Your task to perform on an android device: Open calendar and show me the third week of next month Image 0: 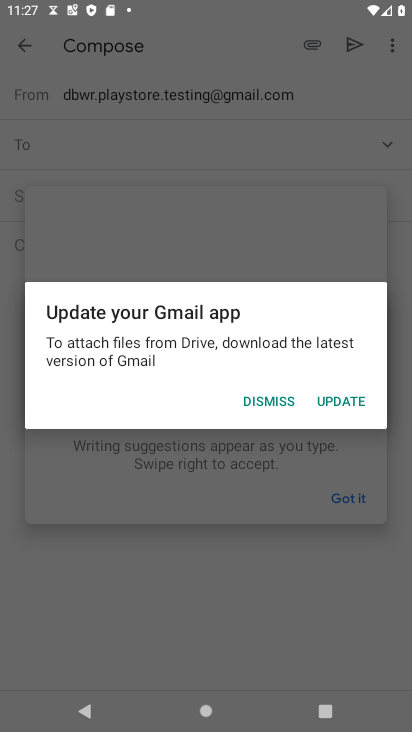
Step 0: click (117, 62)
Your task to perform on an android device: Open calendar and show me the third week of next month Image 1: 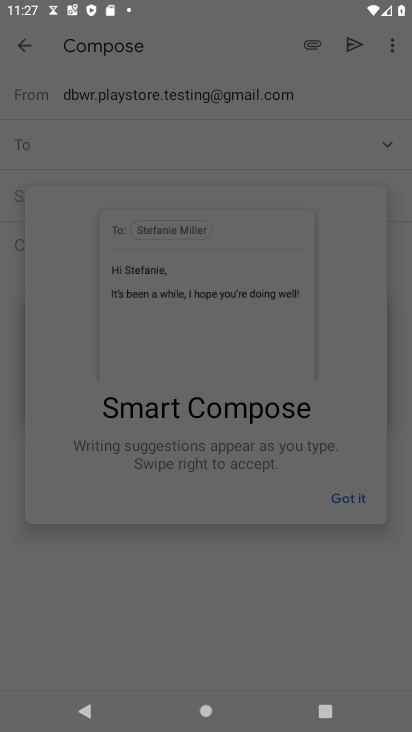
Step 1: press back button
Your task to perform on an android device: Open calendar and show me the third week of next month Image 2: 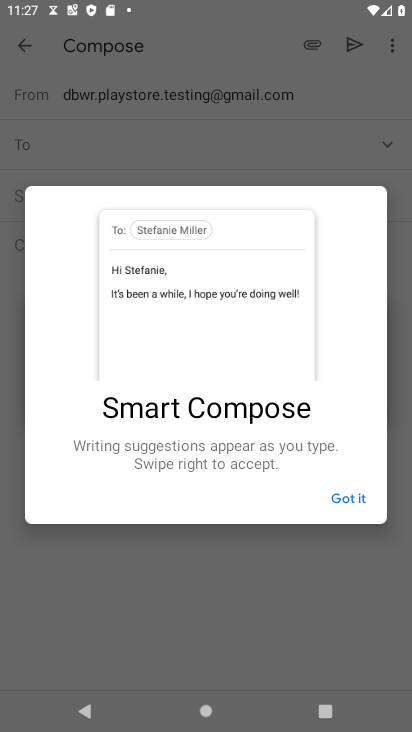
Step 2: press back button
Your task to perform on an android device: Open calendar and show me the third week of next month Image 3: 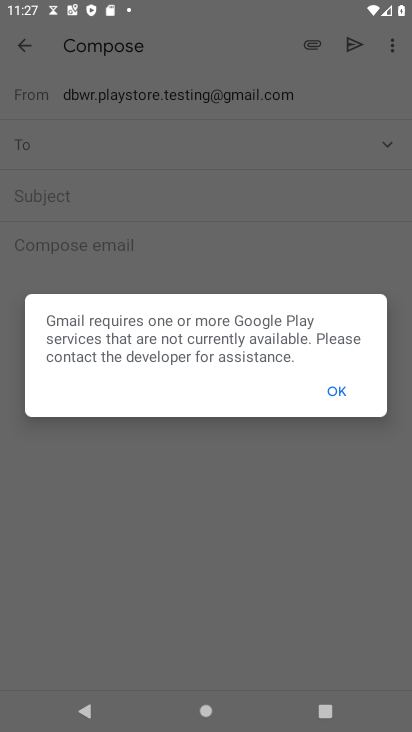
Step 3: press back button
Your task to perform on an android device: Open calendar and show me the third week of next month Image 4: 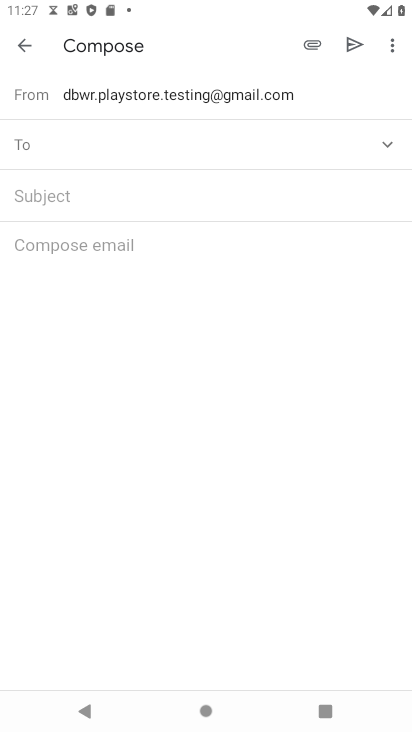
Step 4: press back button
Your task to perform on an android device: Open calendar and show me the third week of next month Image 5: 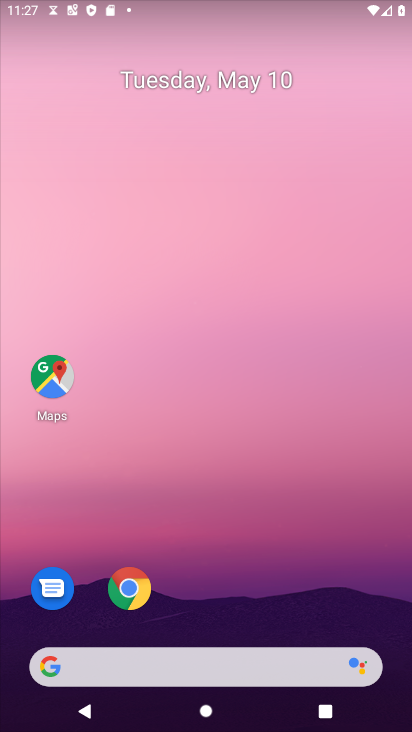
Step 5: click (14, 36)
Your task to perform on an android device: Open calendar and show me the third week of next month Image 6: 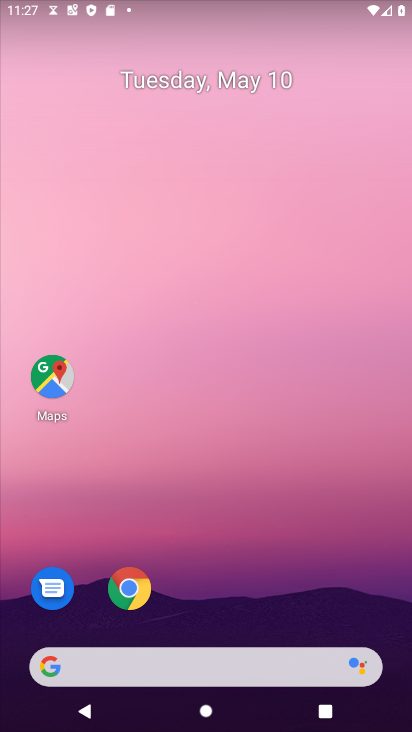
Step 6: press back button
Your task to perform on an android device: Open calendar and show me the third week of next month Image 7: 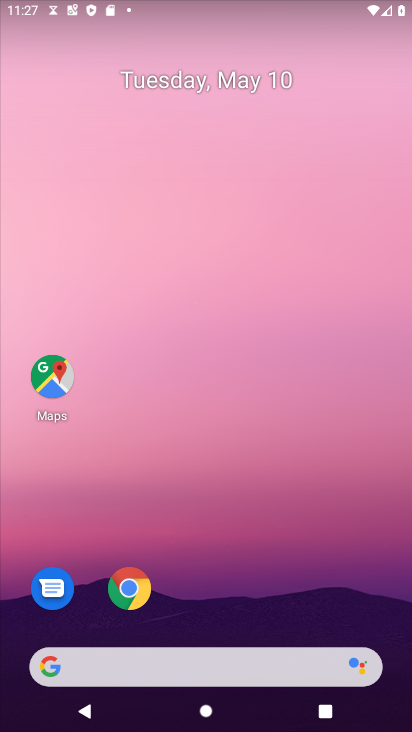
Step 7: drag from (374, 642) to (121, 99)
Your task to perform on an android device: Open calendar and show me the third week of next month Image 8: 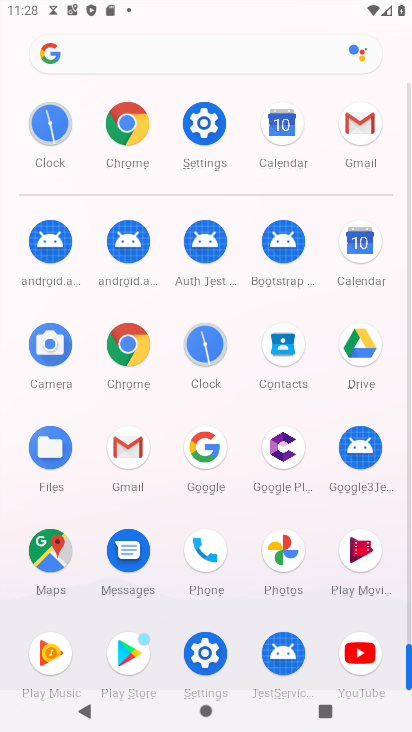
Step 8: click (360, 234)
Your task to perform on an android device: Open calendar and show me the third week of next month Image 9: 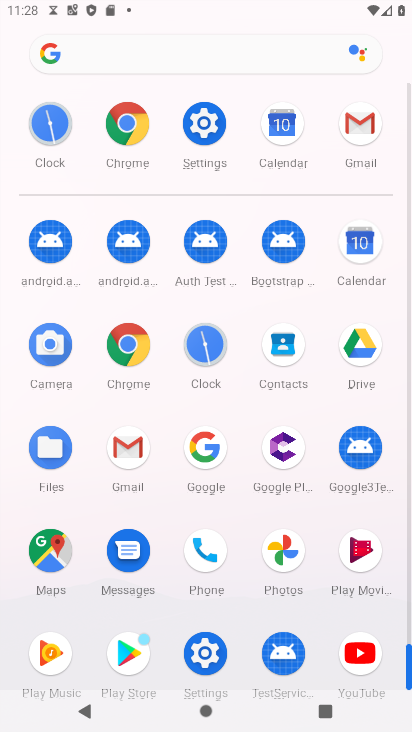
Step 9: click (359, 234)
Your task to perform on an android device: Open calendar and show me the third week of next month Image 10: 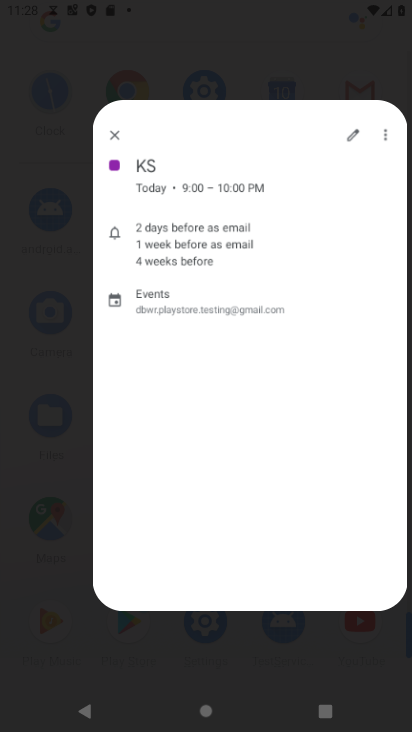
Step 10: click (352, 241)
Your task to perform on an android device: Open calendar and show me the third week of next month Image 11: 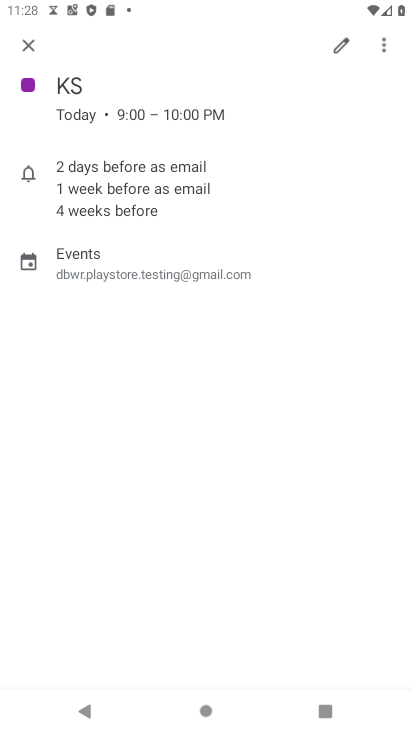
Step 11: click (19, 38)
Your task to perform on an android device: Open calendar and show me the third week of next month Image 12: 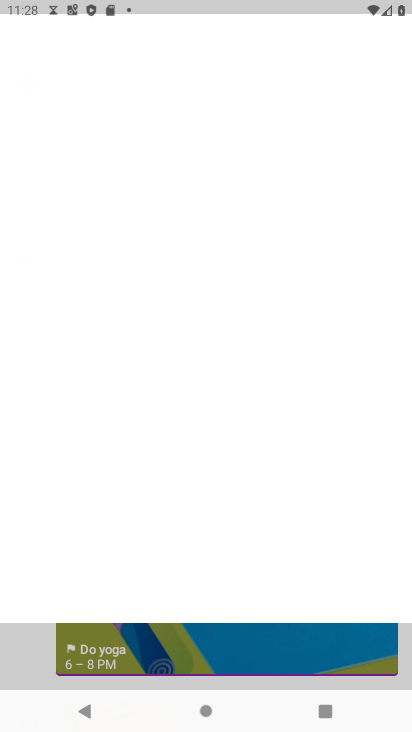
Step 12: click (21, 40)
Your task to perform on an android device: Open calendar and show me the third week of next month Image 13: 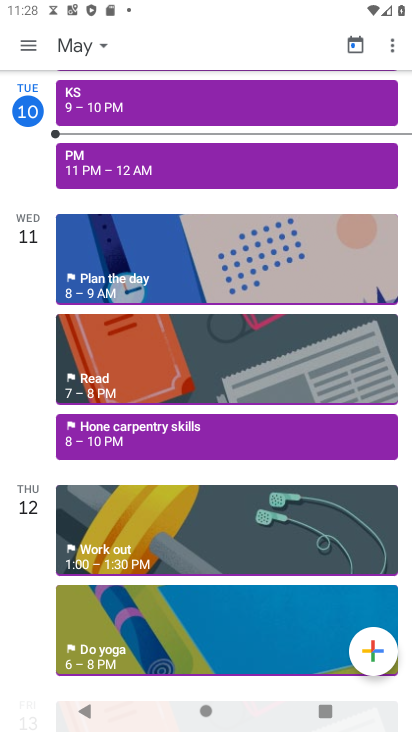
Step 13: click (94, 45)
Your task to perform on an android device: Open calendar and show me the third week of next month Image 14: 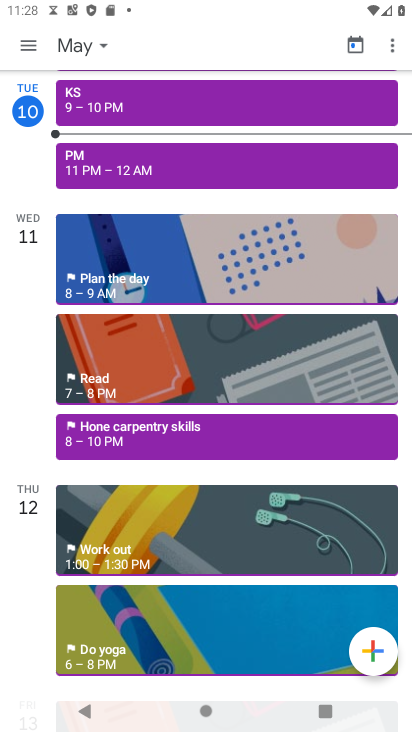
Step 14: click (94, 45)
Your task to perform on an android device: Open calendar and show me the third week of next month Image 15: 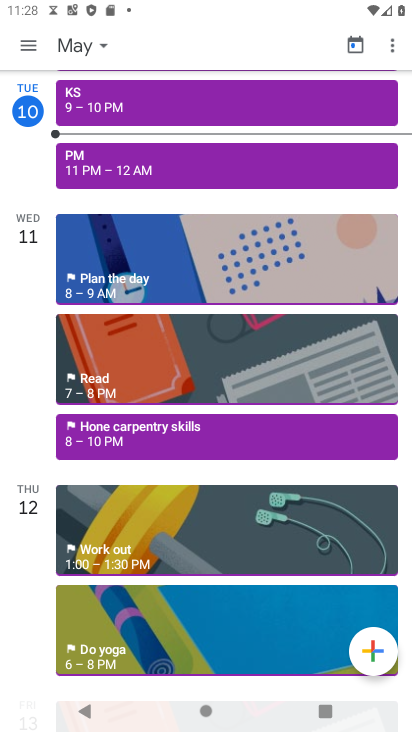
Step 15: click (100, 43)
Your task to perform on an android device: Open calendar and show me the third week of next month Image 16: 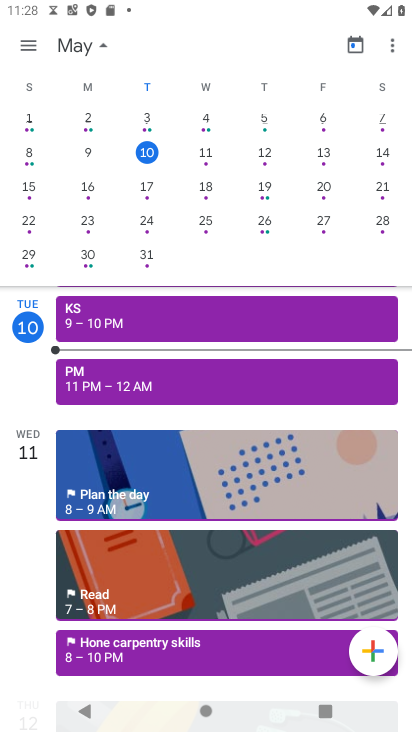
Step 16: drag from (243, 166) to (0, 231)
Your task to perform on an android device: Open calendar and show me the third week of next month Image 17: 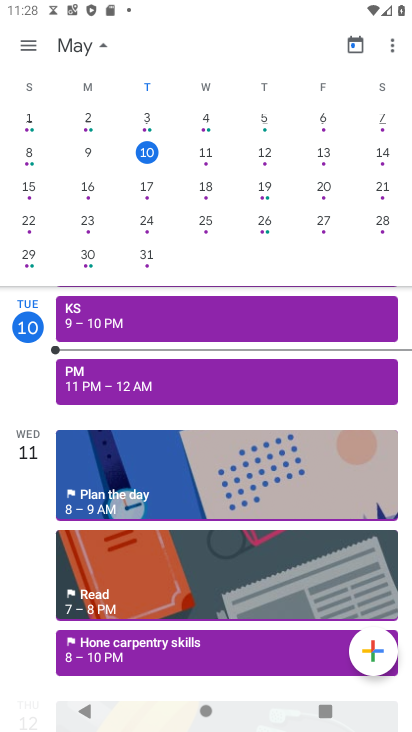
Step 17: drag from (231, 158) to (24, 277)
Your task to perform on an android device: Open calendar and show me the third week of next month Image 18: 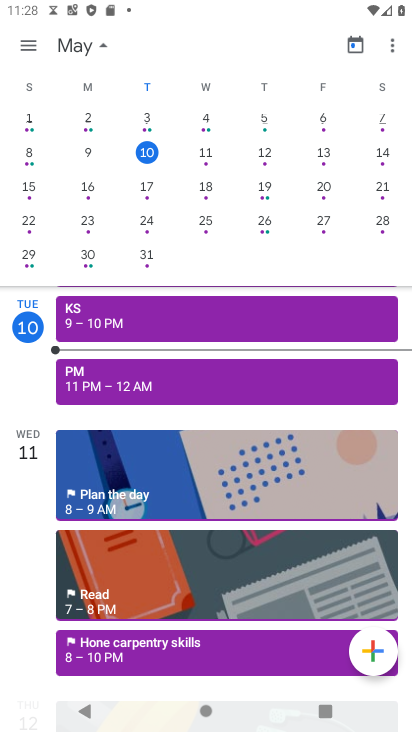
Step 18: drag from (252, 160) to (5, 207)
Your task to perform on an android device: Open calendar and show me the third week of next month Image 19: 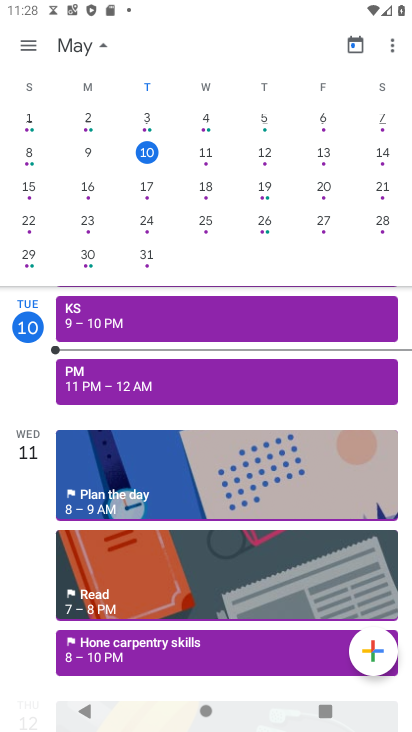
Step 19: drag from (288, 156) to (5, 168)
Your task to perform on an android device: Open calendar and show me the third week of next month Image 20: 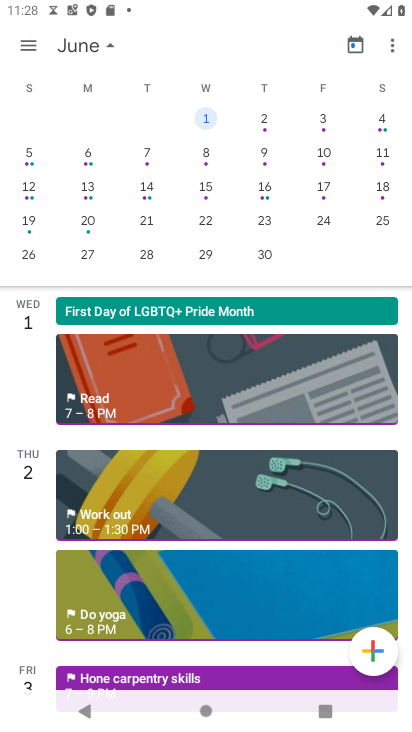
Step 20: click (211, 185)
Your task to perform on an android device: Open calendar and show me the third week of next month Image 21: 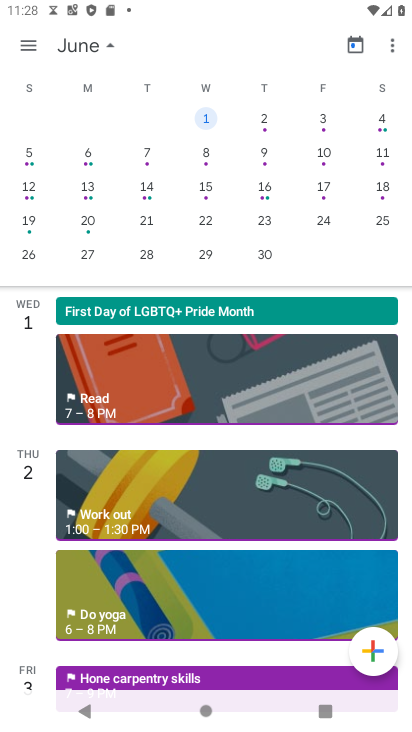
Step 21: click (211, 185)
Your task to perform on an android device: Open calendar and show me the third week of next month Image 22: 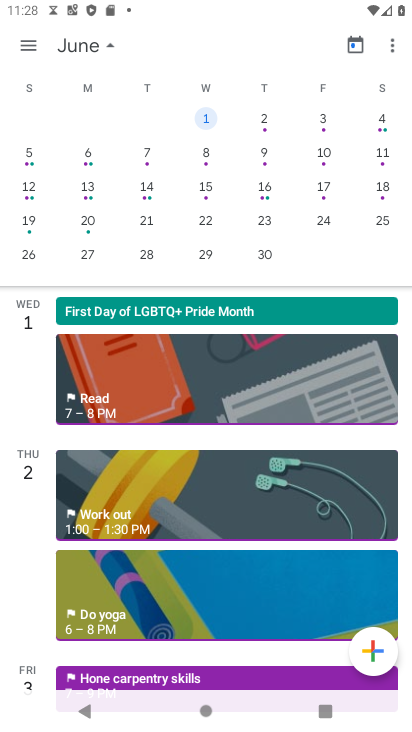
Step 22: click (211, 185)
Your task to perform on an android device: Open calendar and show me the third week of next month Image 23: 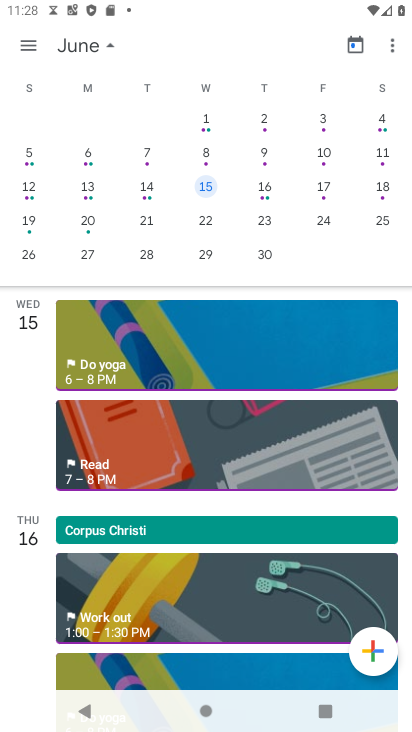
Step 23: task complete